Your task to perform on an android device: Open ESPN.com Image 0: 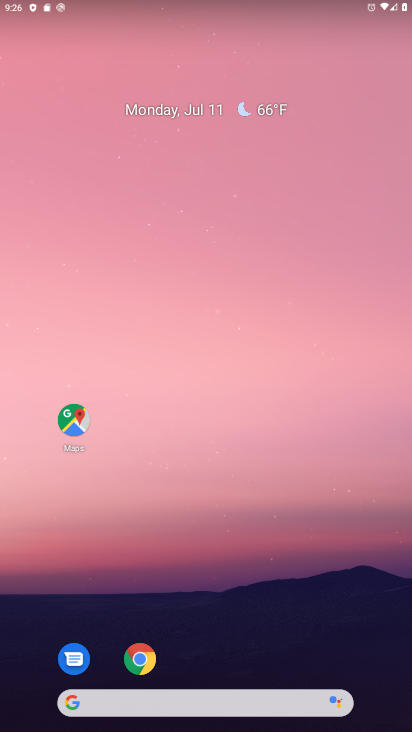
Step 0: drag from (370, 663) to (369, 147)
Your task to perform on an android device: Open ESPN.com Image 1: 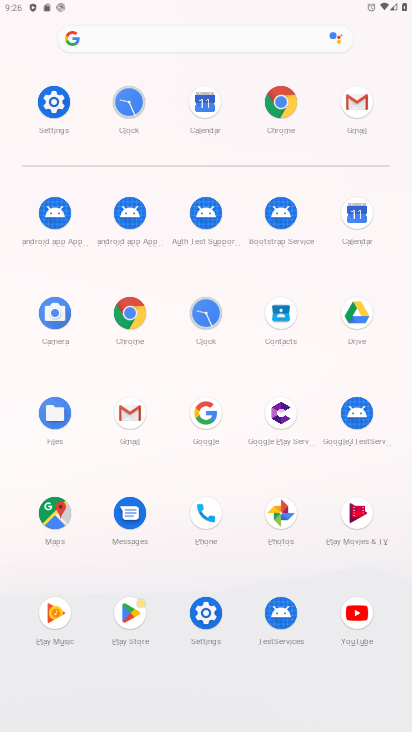
Step 1: click (134, 312)
Your task to perform on an android device: Open ESPN.com Image 2: 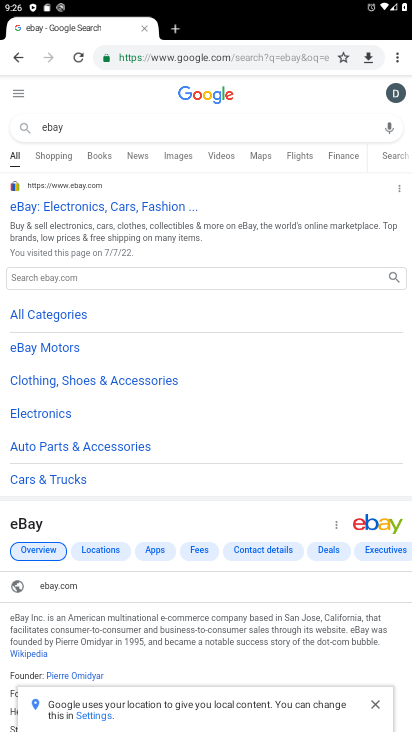
Step 2: click (224, 57)
Your task to perform on an android device: Open ESPN.com Image 3: 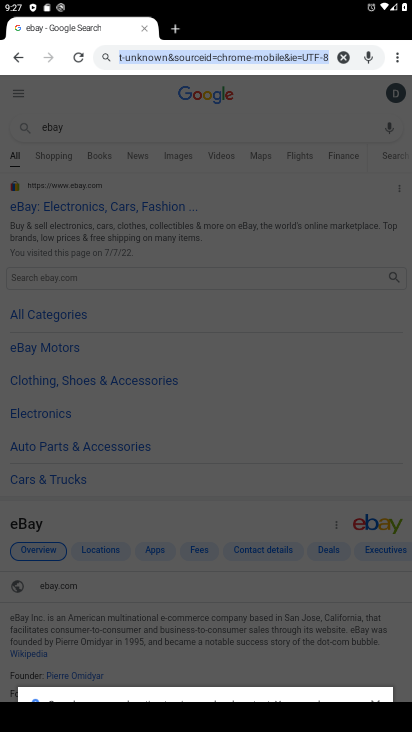
Step 3: type "espn.com"
Your task to perform on an android device: Open ESPN.com Image 4: 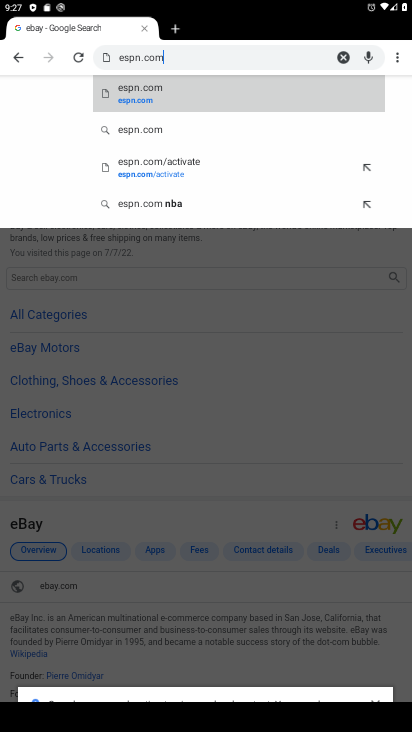
Step 4: click (186, 101)
Your task to perform on an android device: Open ESPN.com Image 5: 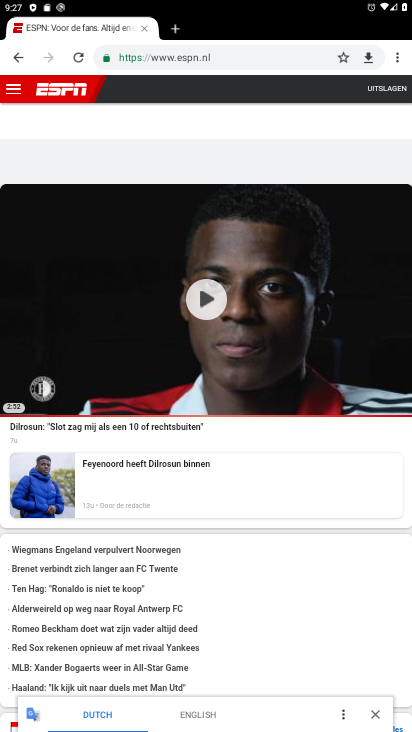
Step 5: task complete